Your task to perform on an android device: Open accessibility settings Image 0: 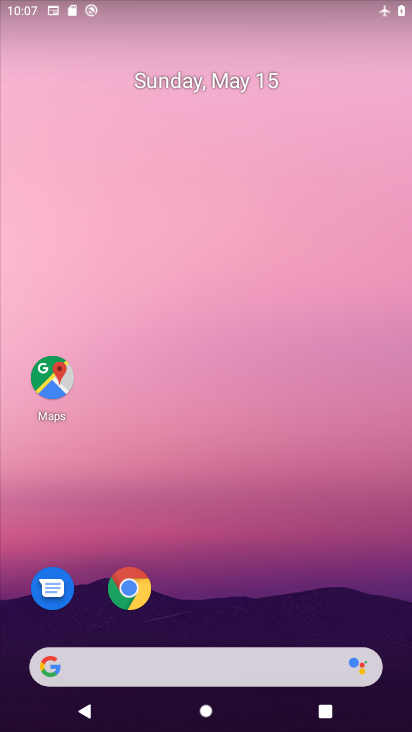
Step 0: drag from (218, 605) to (132, 114)
Your task to perform on an android device: Open accessibility settings Image 1: 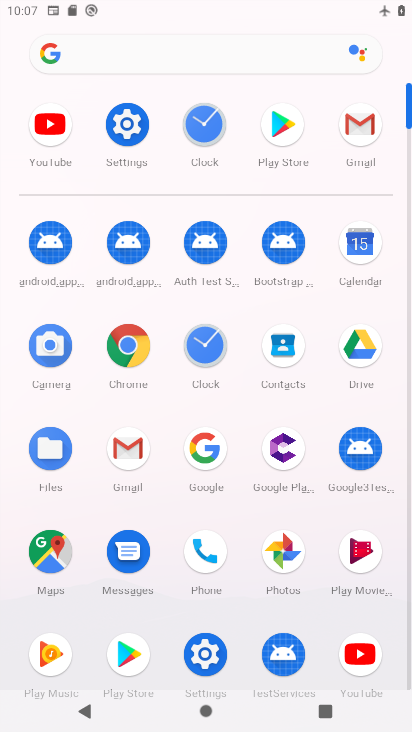
Step 1: click (199, 651)
Your task to perform on an android device: Open accessibility settings Image 2: 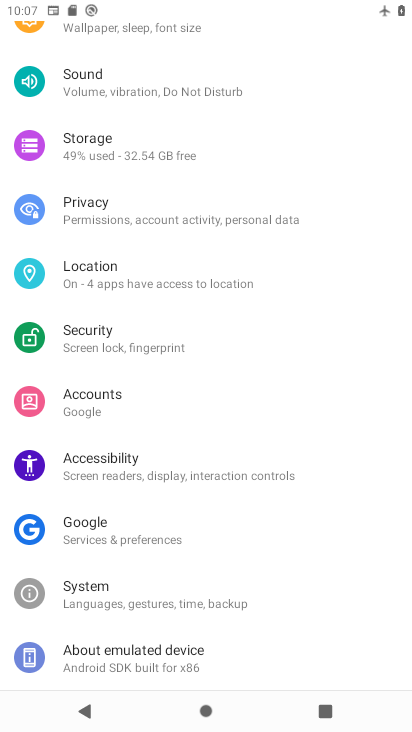
Step 2: click (136, 472)
Your task to perform on an android device: Open accessibility settings Image 3: 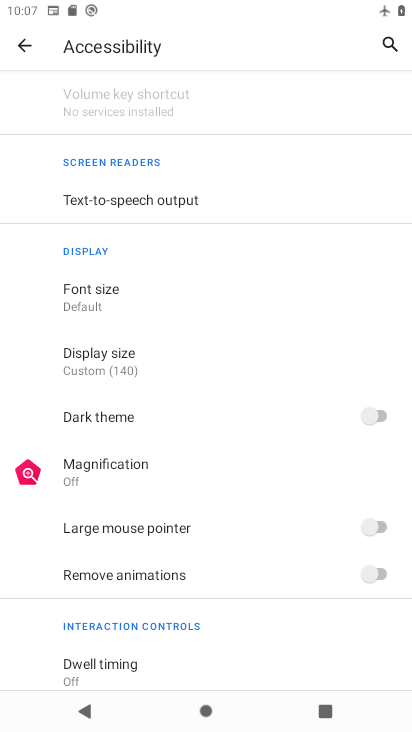
Step 3: task complete